Your task to perform on an android device: Turn off the flashlight Image 0: 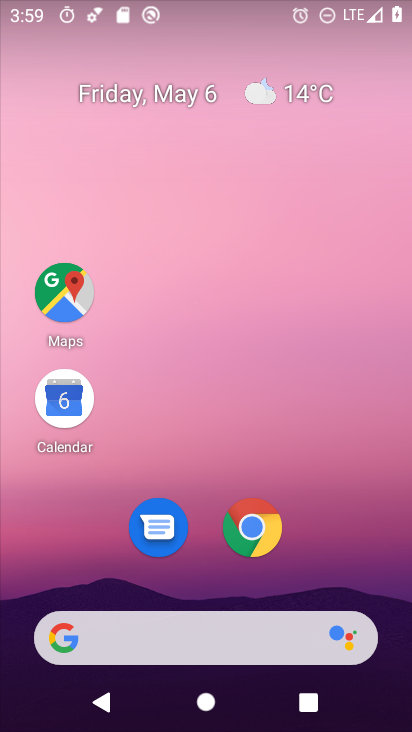
Step 0: drag from (272, 9) to (233, 459)
Your task to perform on an android device: Turn off the flashlight Image 1: 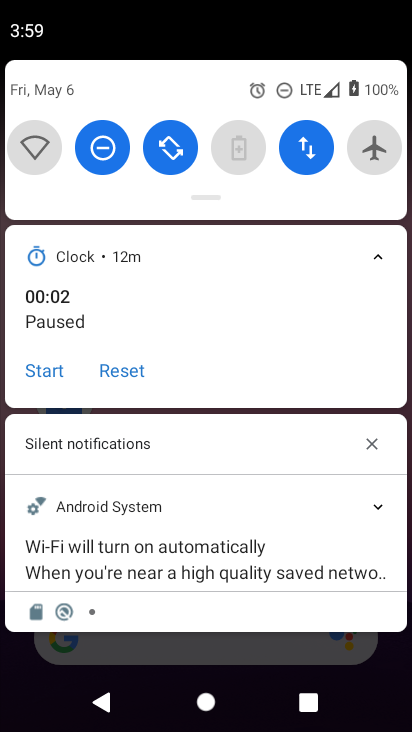
Step 1: task complete